Your task to perform on an android device: toggle show notifications on the lock screen Image 0: 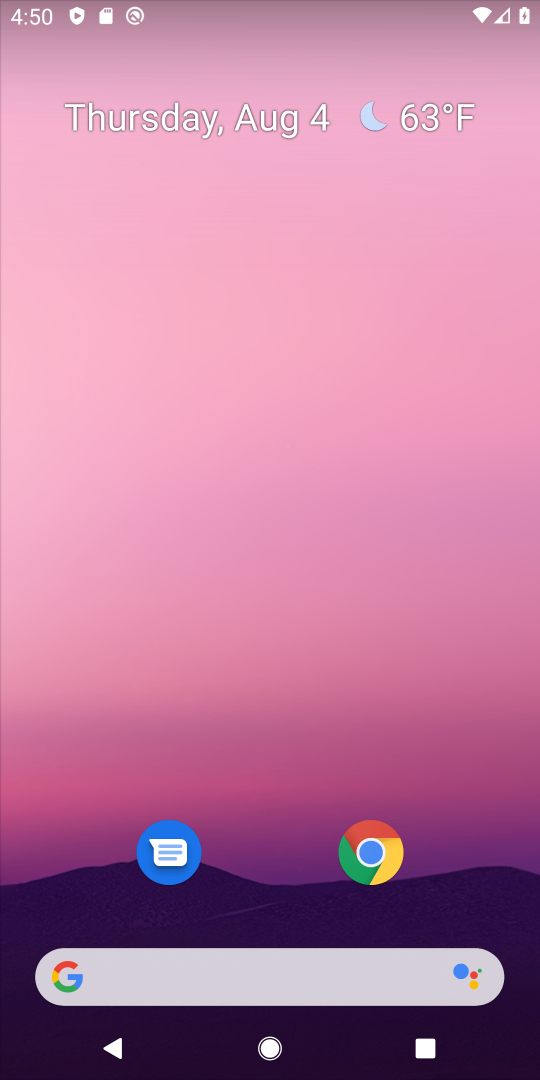
Step 0: drag from (299, 912) to (268, 223)
Your task to perform on an android device: toggle show notifications on the lock screen Image 1: 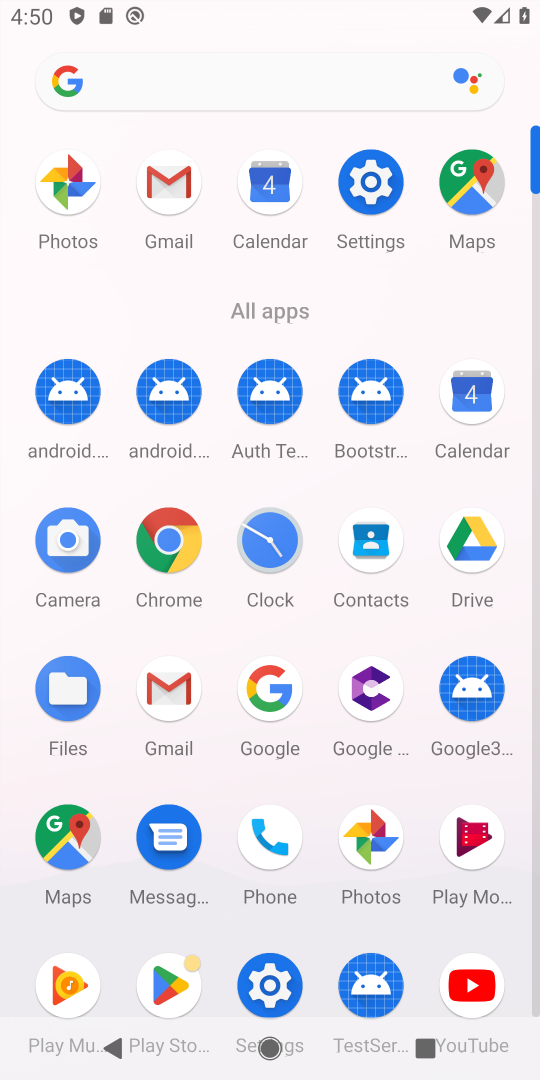
Step 1: click (373, 175)
Your task to perform on an android device: toggle show notifications on the lock screen Image 2: 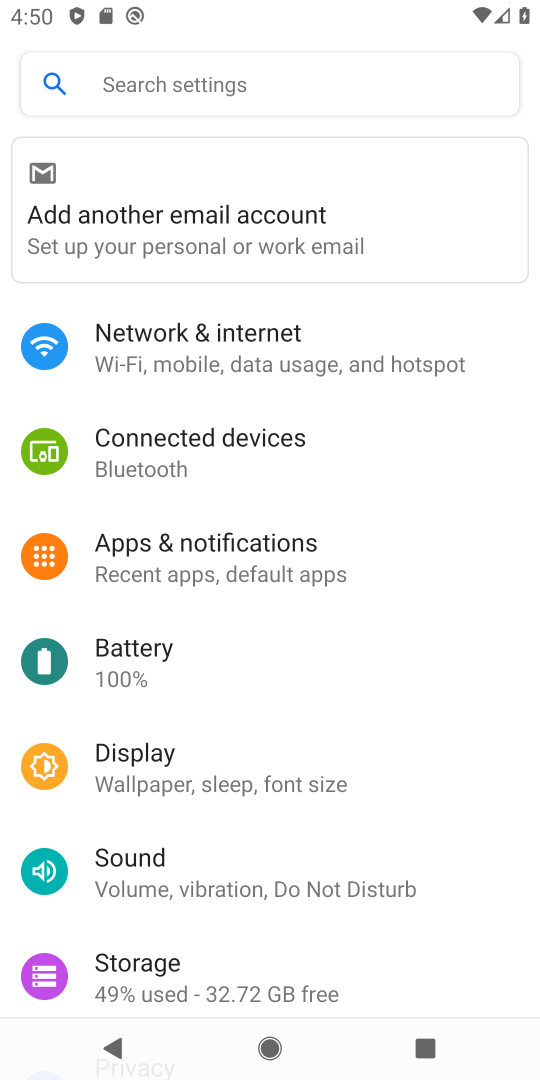
Step 2: click (219, 558)
Your task to perform on an android device: toggle show notifications on the lock screen Image 3: 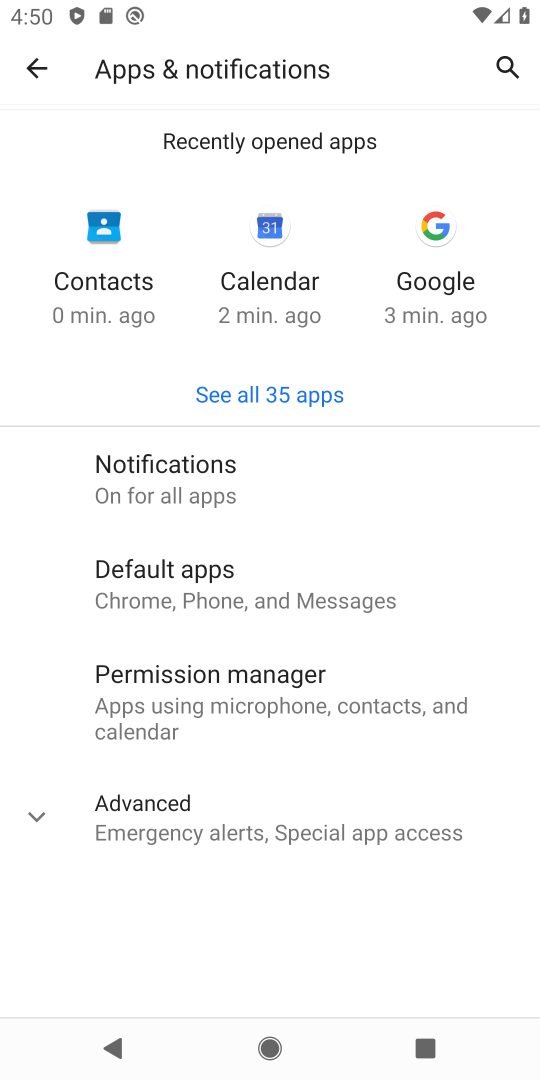
Step 3: click (176, 489)
Your task to perform on an android device: toggle show notifications on the lock screen Image 4: 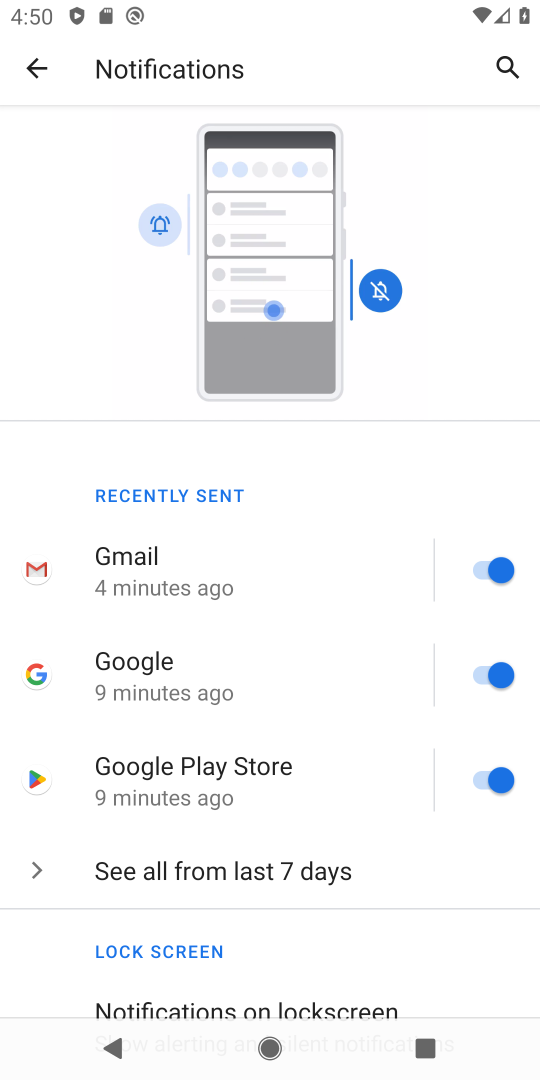
Step 4: drag from (226, 905) to (187, 544)
Your task to perform on an android device: toggle show notifications on the lock screen Image 5: 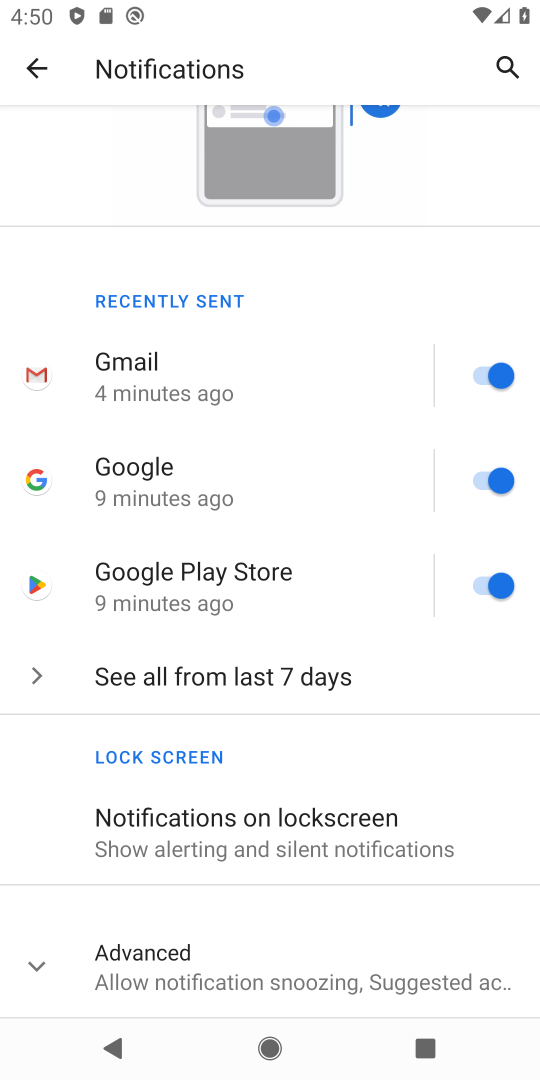
Step 5: click (199, 837)
Your task to perform on an android device: toggle show notifications on the lock screen Image 6: 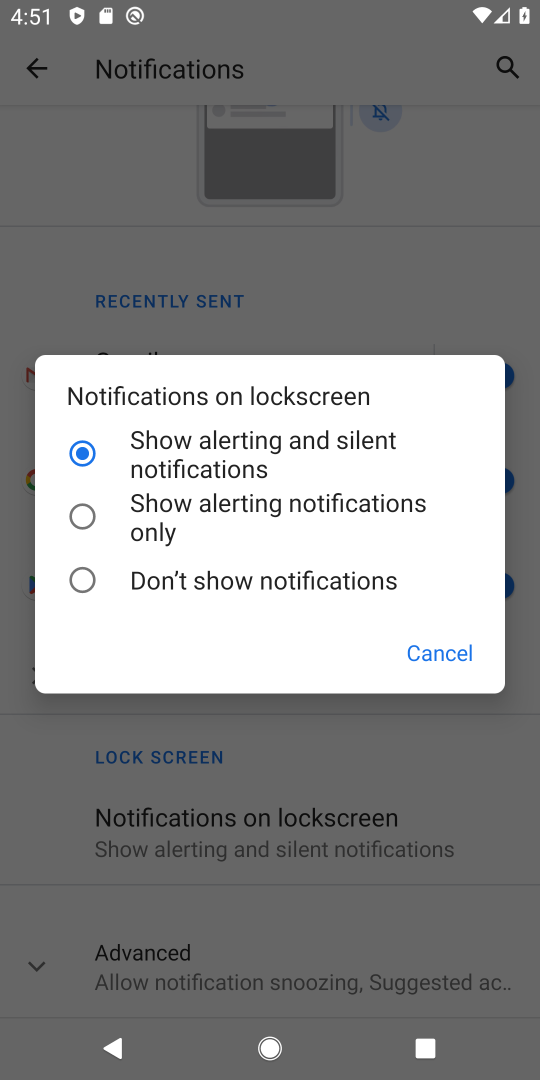
Step 6: click (91, 570)
Your task to perform on an android device: toggle show notifications on the lock screen Image 7: 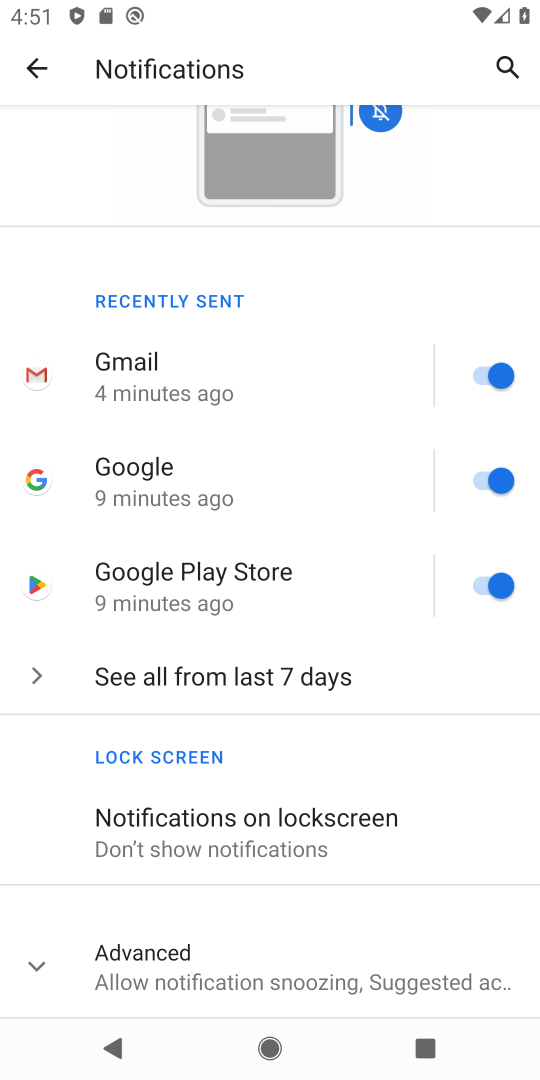
Step 7: task complete